Your task to perform on an android device: turn off notifications in google photos Image 0: 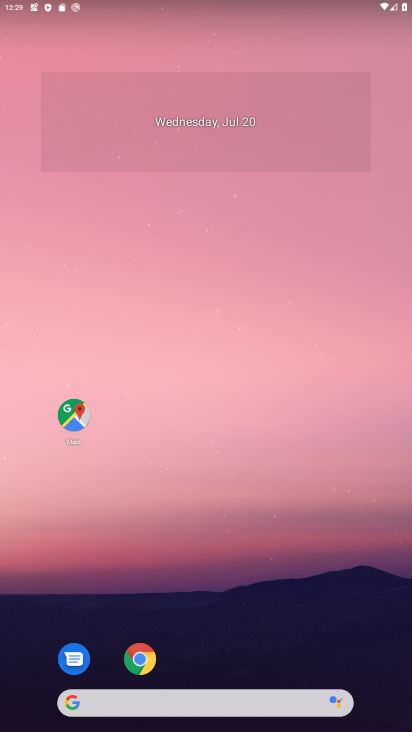
Step 0: drag from (219, 518) to (218, 325)
Your task to perform on an android device: turn off notifications in google photos Image 1: 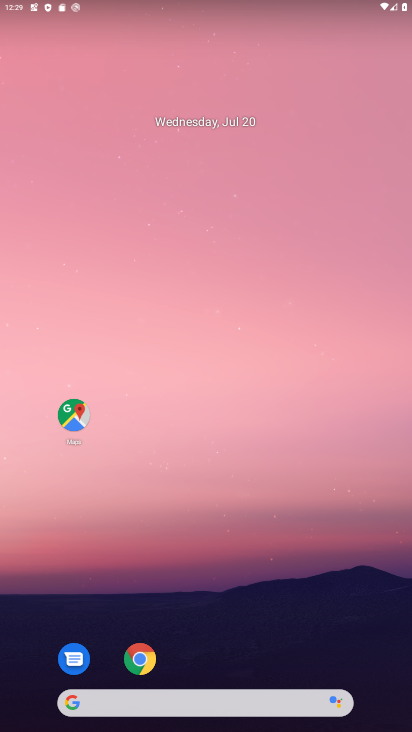
Step 1: drag from (222, 568) to (213, 230)
Your task to perform on an android device: turn off notifications in google photos Image 2: 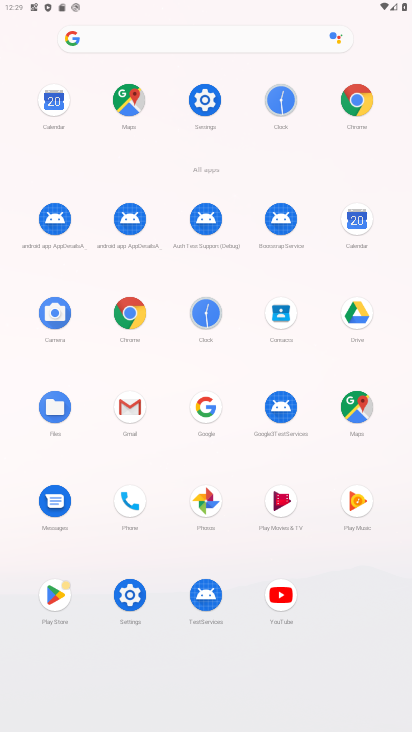
Step 2: click (209, 499)
Your task to perform on an android device: turn off notifications in google photos Image 3: 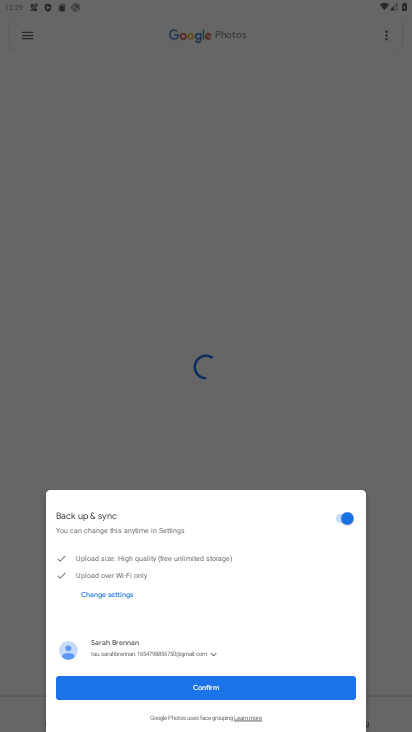
Step 3: task complete